Your task to perform on an android device: Go to sound settings Image 0: 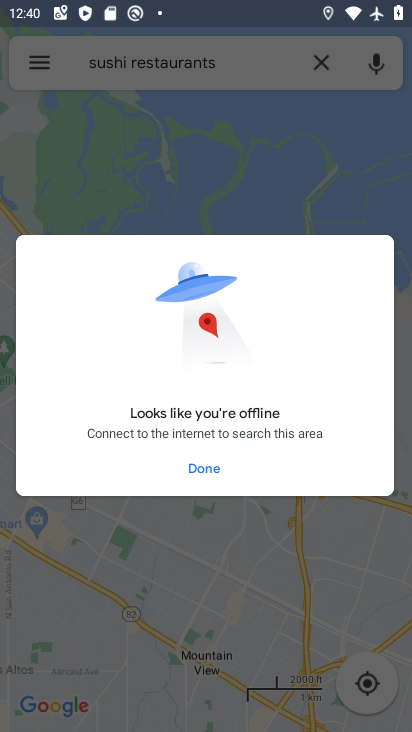
Step 0: press home button
Your task to perform on an android device: Go to sound settings Image 1: 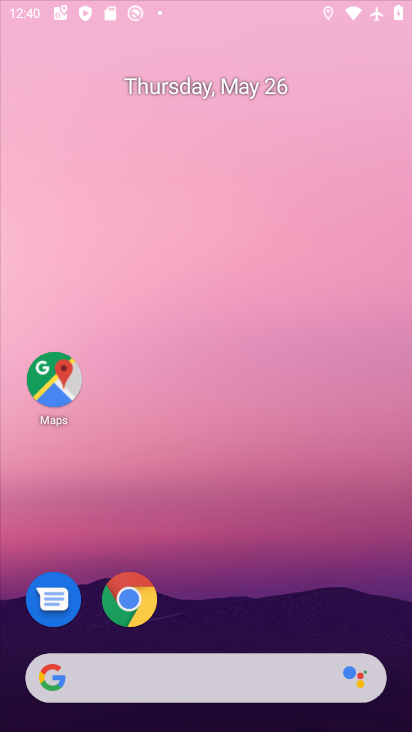
Step 1: drag from (332, 558) to (170, 40)
Your task to perform on an android device: Go to sound settings Image 2: 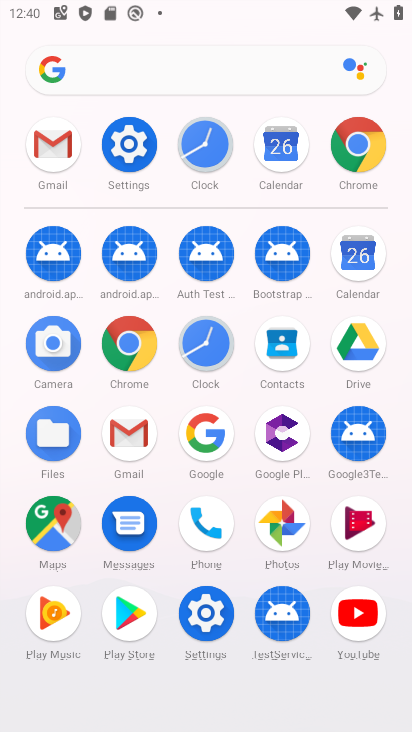
Step 2: click (124, 144)
Your task to perform on an android device: Go to sound settings Image 3: 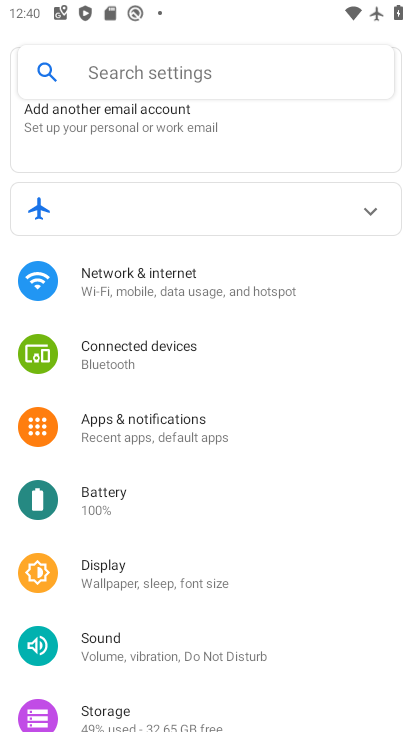
Step 3: click (136, 664)
Your task to perform on an android device: Go to sound settings Image 4: 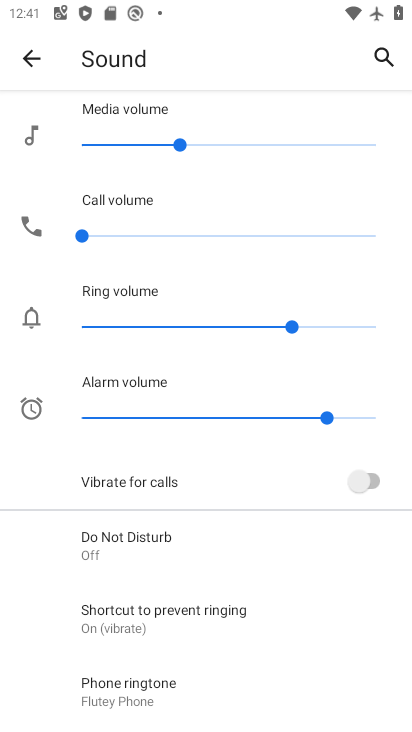
Step 4: task complete